Your task to perform on an android device: open app "Facebook Messenger" (install if not already installed) and go to login screen Image 0: 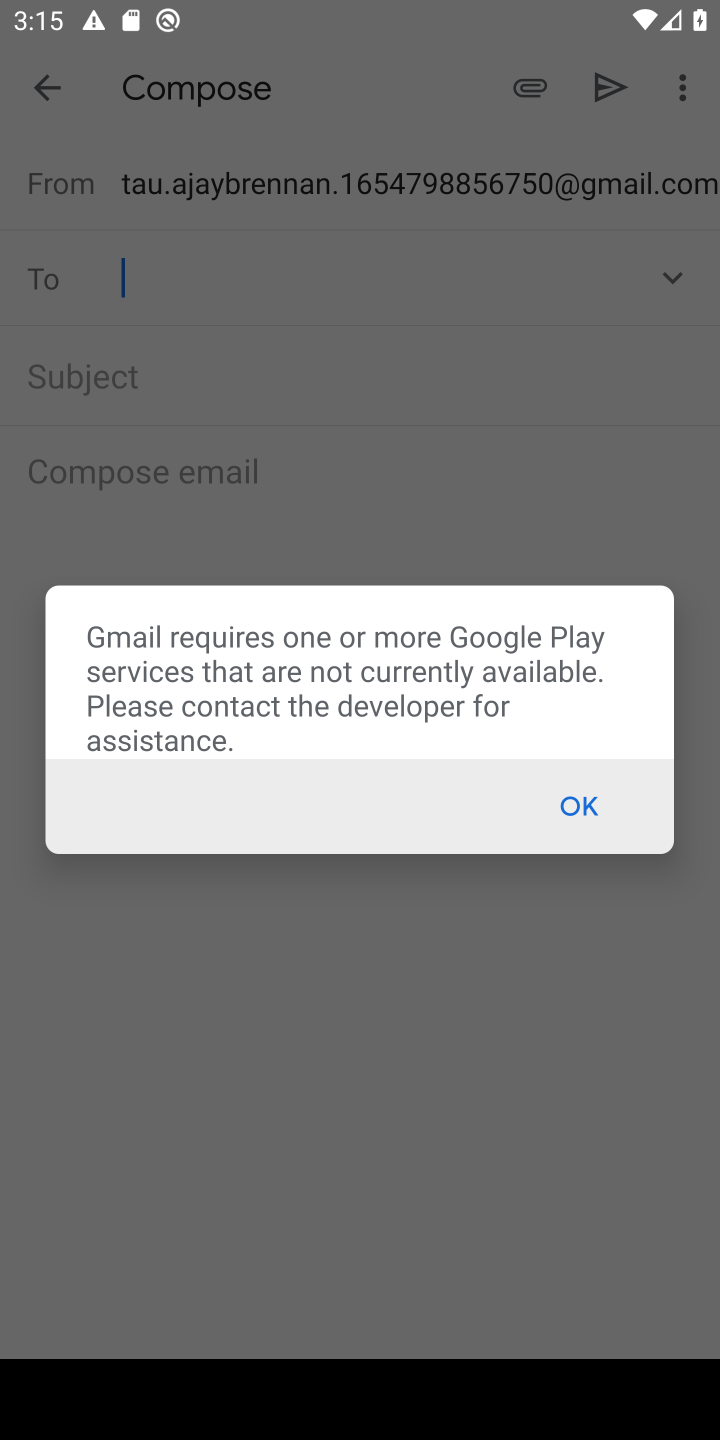
Step 0: press home button
Your task to perform on an android device: open app "Facebook Messenger" (install if not already installed) and go to login screen Image 1: 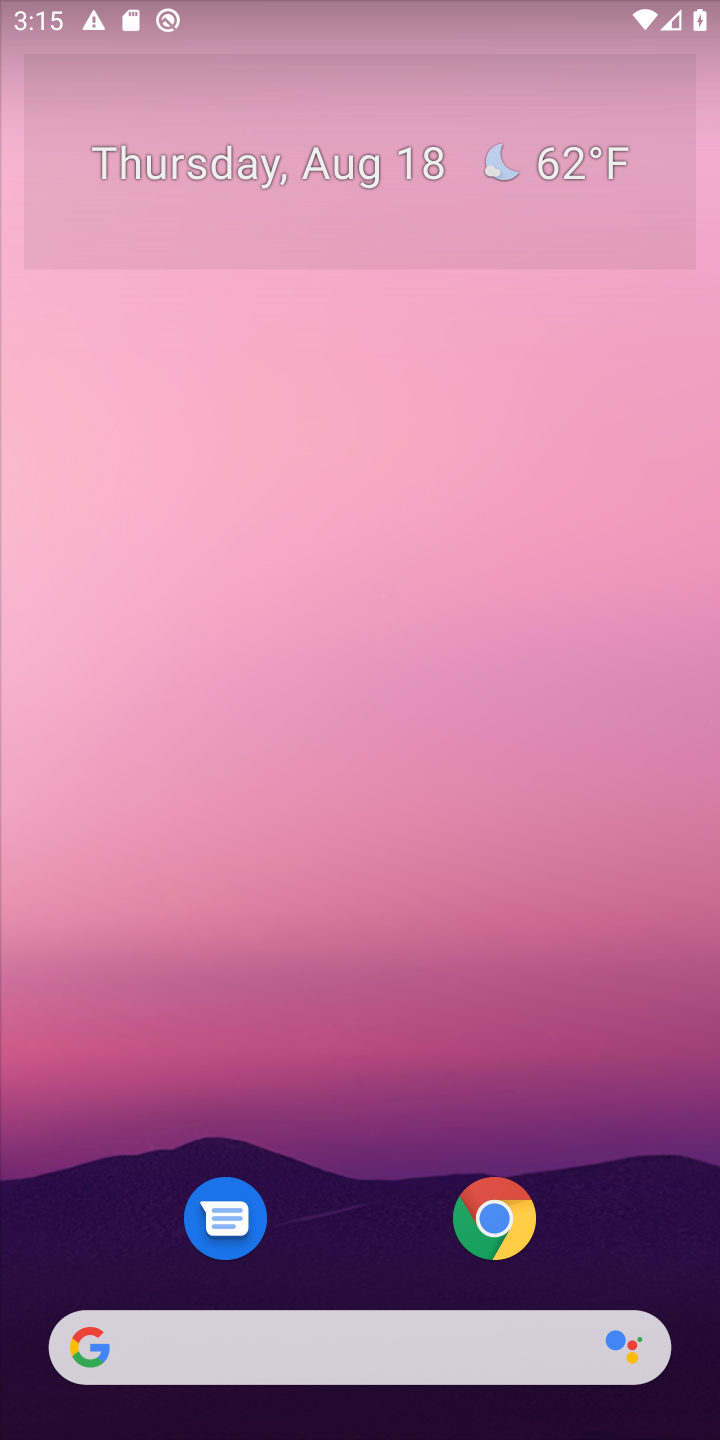
Step 1: drag from (401, 941) to (401, 222)
Your task to perform on an android device: open app "Facebook Messenger" (install if not already installed) and go to login screen Image 2: 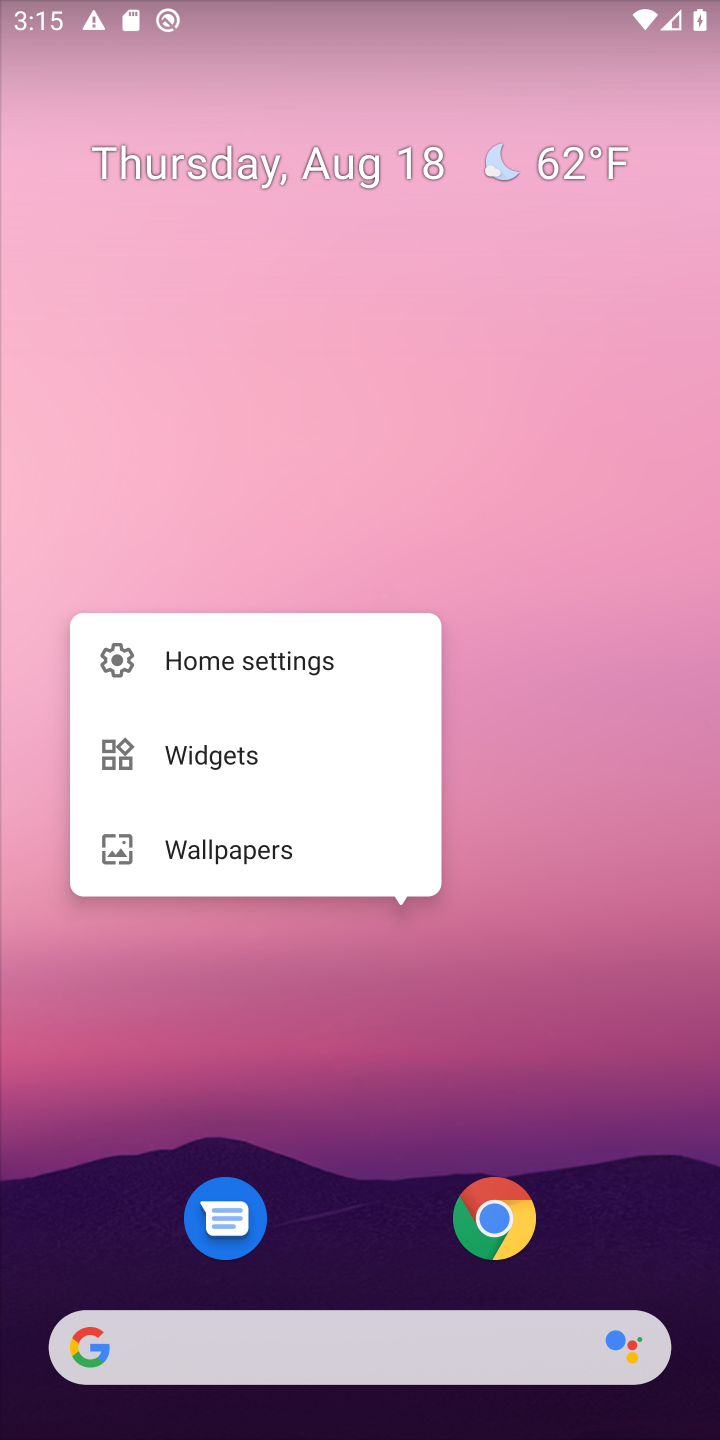
Step 2: click (592, 612)
Your task to perform on an android device: open app "Facebook Messenger" (install if not already installed) and go to login screen Image 3: 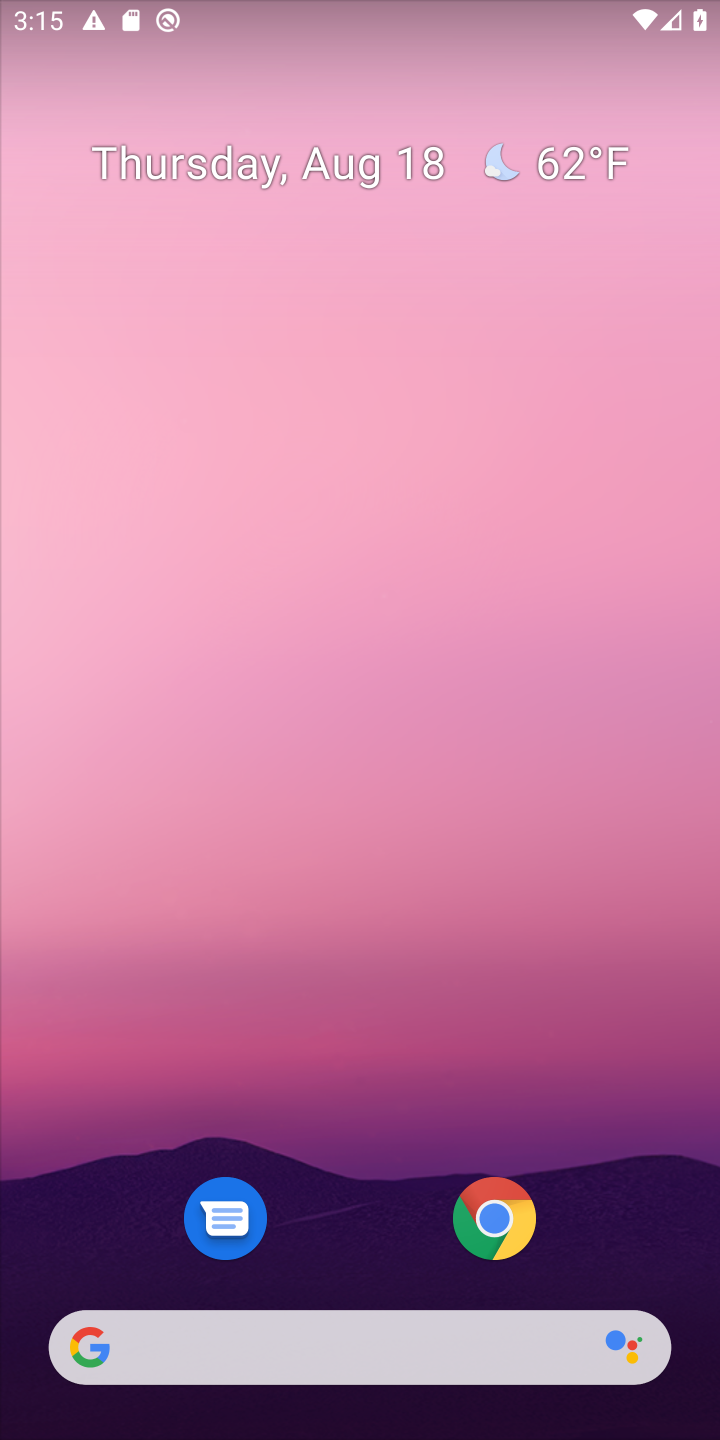
Step 3: drag from (367, 1149) to (365, 287)
Your task to perform on an android device: open app "Facebook Messenger" (install if not already installed) and go to login screen Image 4: 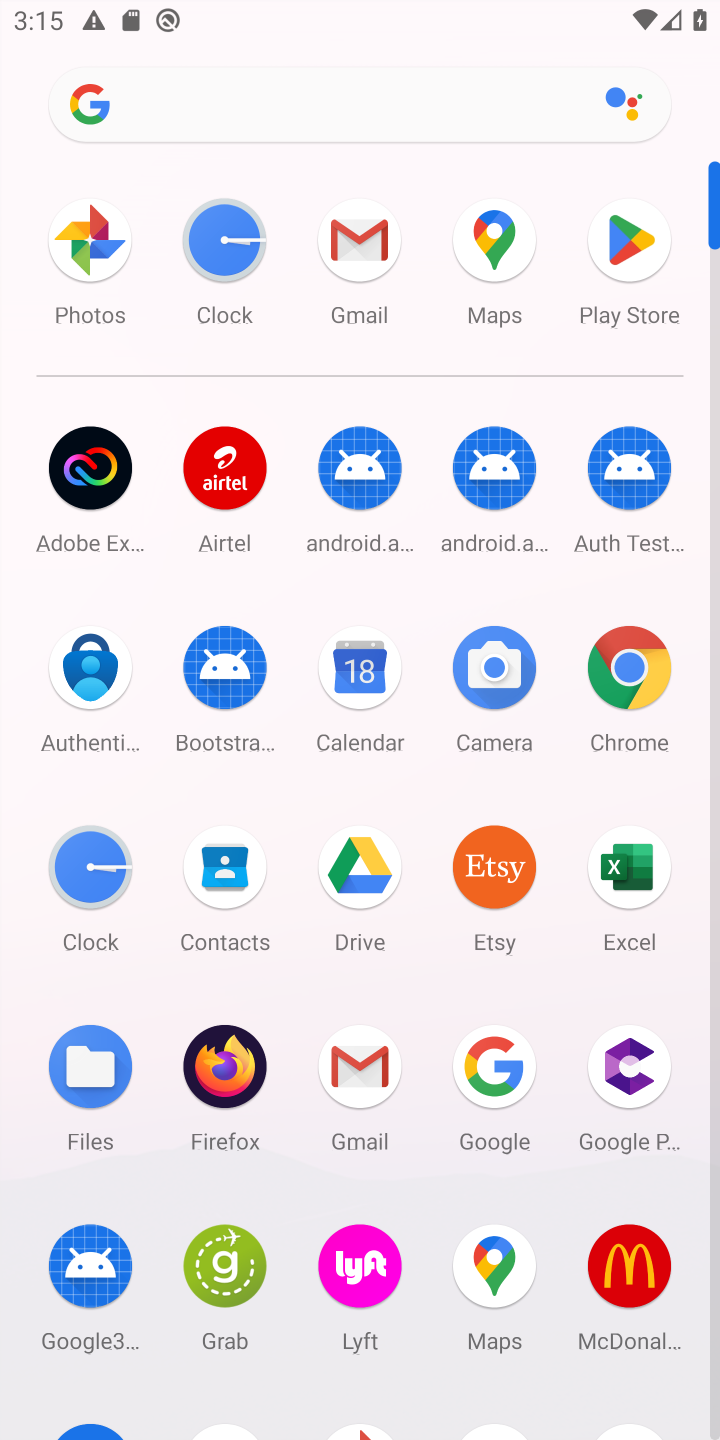
Step 4: click (631, 271)
Your task to perform on an android device: open app "Facebook Messenger" (install if not already installed) and go to login screen Image 5: 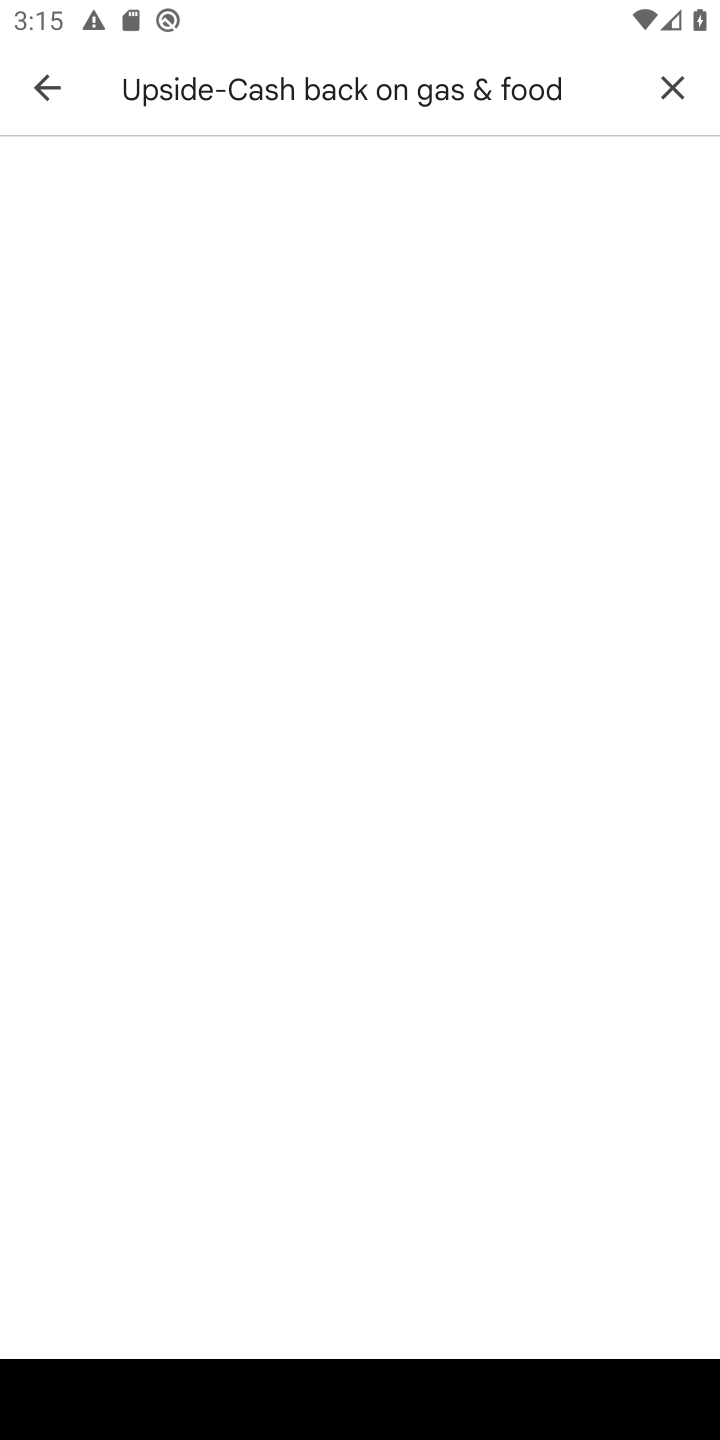
Step 5: click (661, 75)
Your task to perform on an android device: open app "Facebook Messenger" (install if not already installed) and go to login screen Image 6: 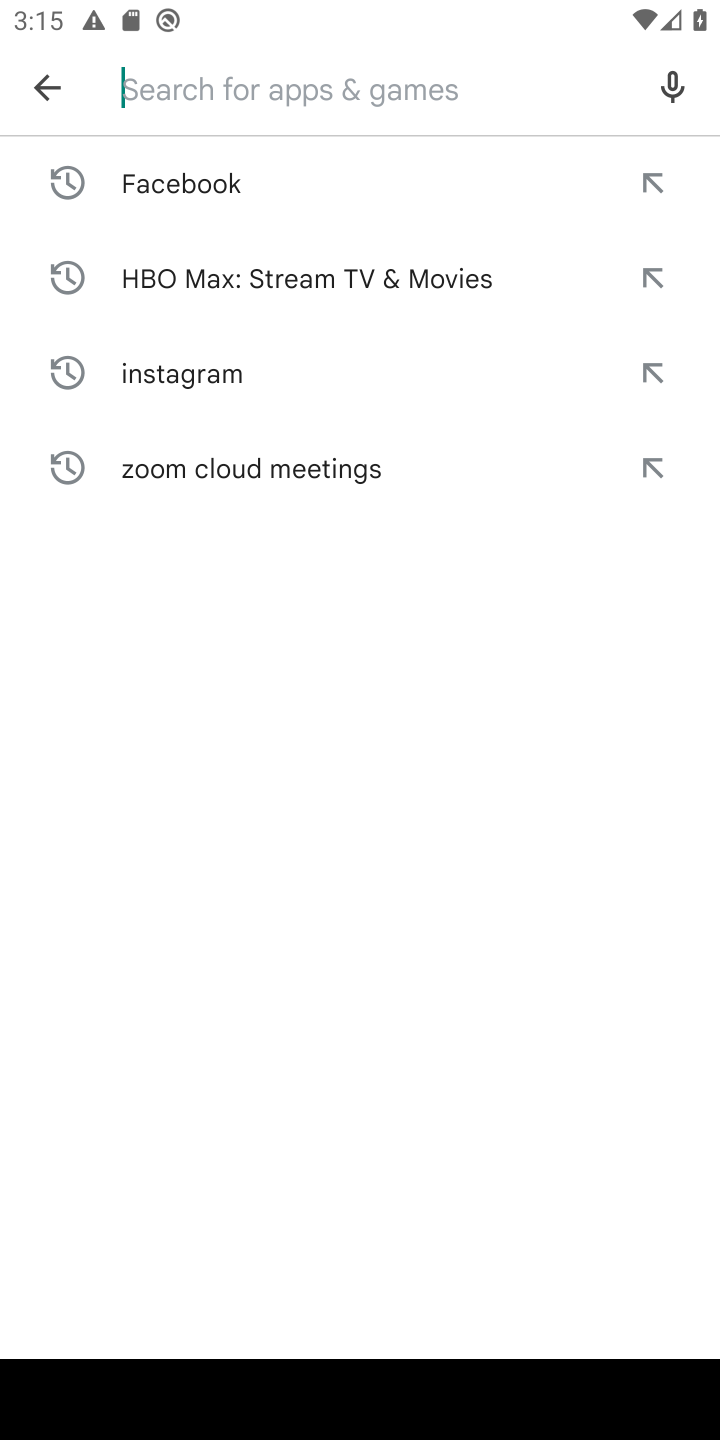
Step 6: type "Facebook Messenger"
Your task to perform on an android device: open app "Facebook Messenger" (install if not already installed) and go to login screen Image 7: 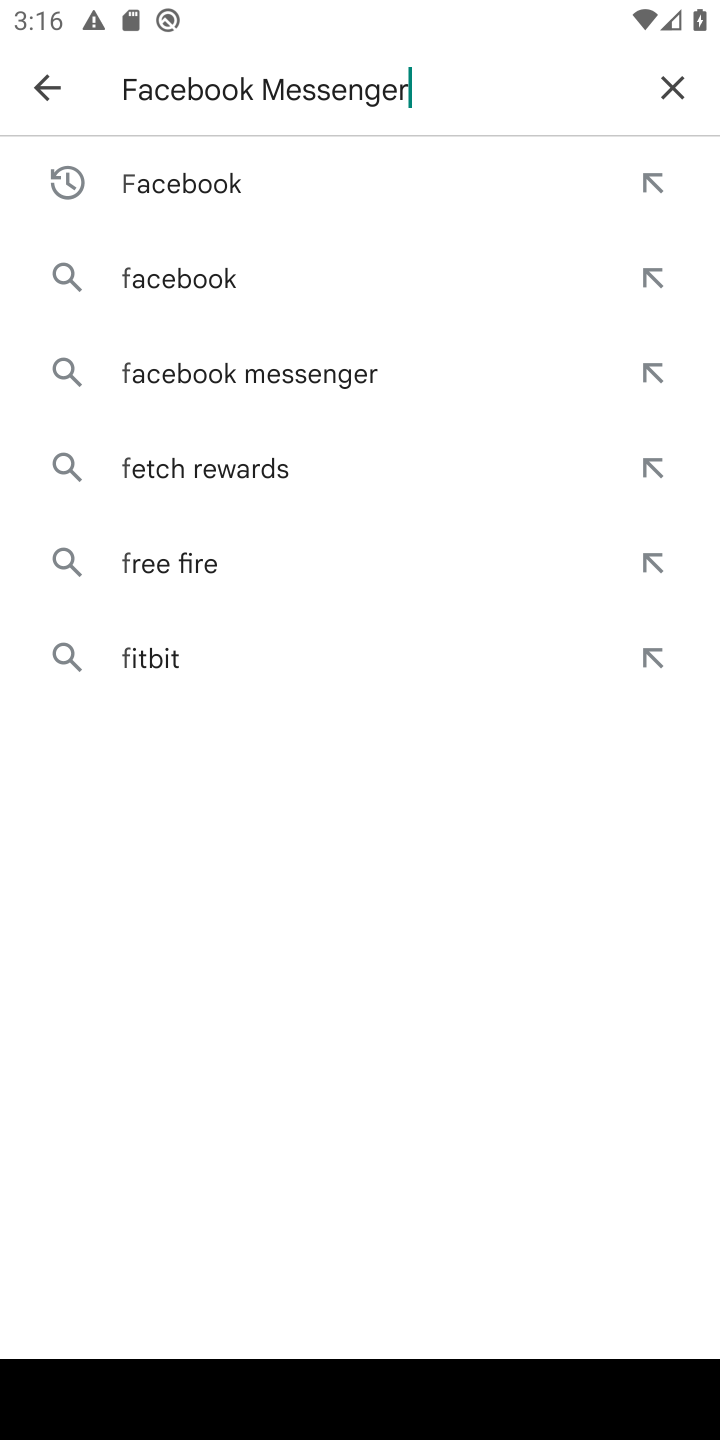
Step 7: type ""
Your task to perform on an android device: open app "Facebook Messenger" (install if not already installed) and go to login screen Image 8: 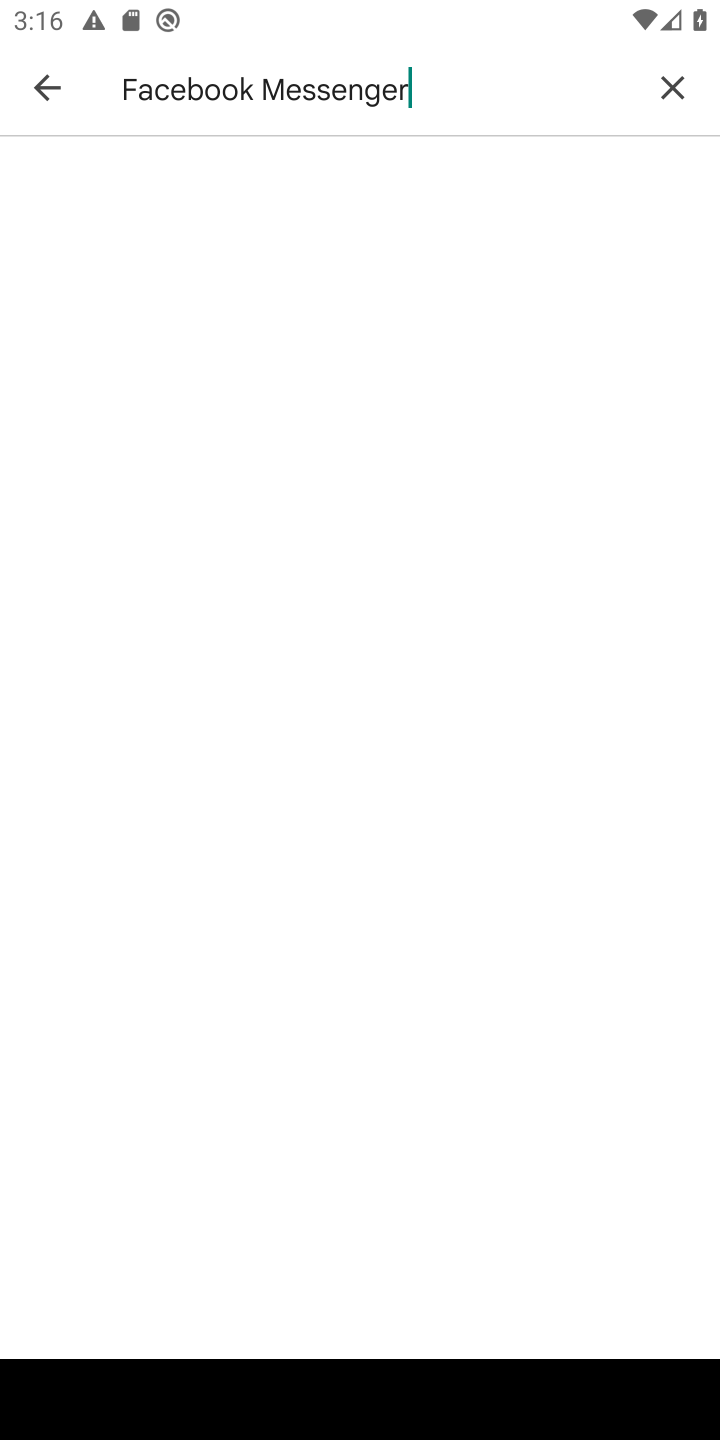
Step 8: task complete